Your task to perform on an android device: Is it going to rain today? Image 0: 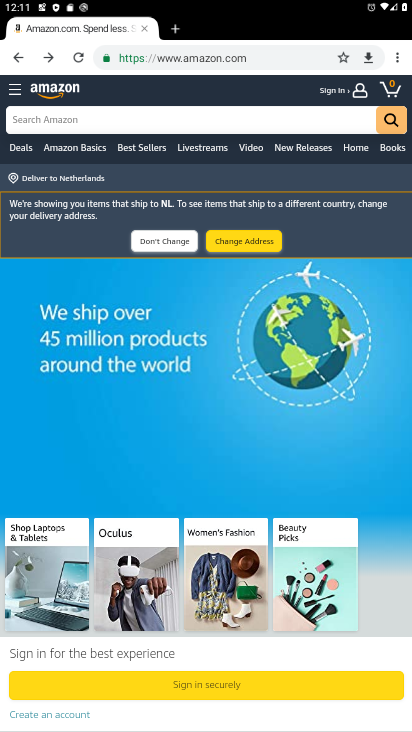
Step 0: press home button
Your task to perform on an android device: Is it going to rain today? Image 1: 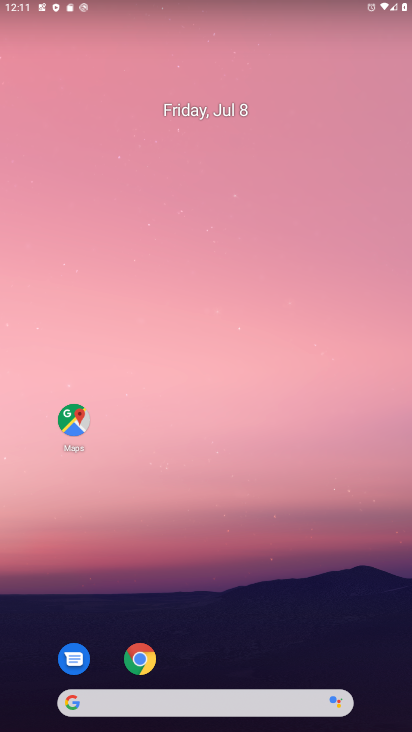
Step 1: click (245, 701)
Your task to perform on an android device: Is it going to rain today? Image 2: 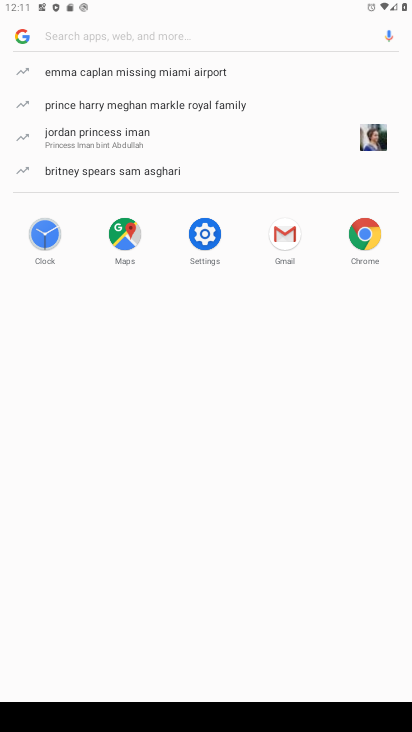
Step 2: type "is it going to rain today"
Your task to perform on an android device: Is it going to rain today? Image 3: 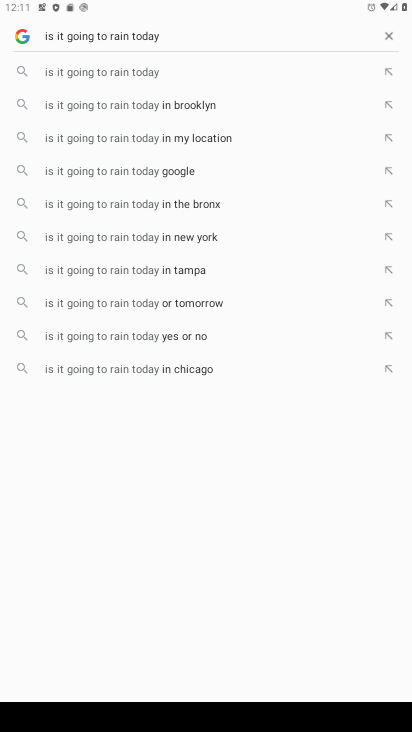
Step 3: click (144, 65)
Your task to perform on an android device: Is it going to rain today? Image 4: 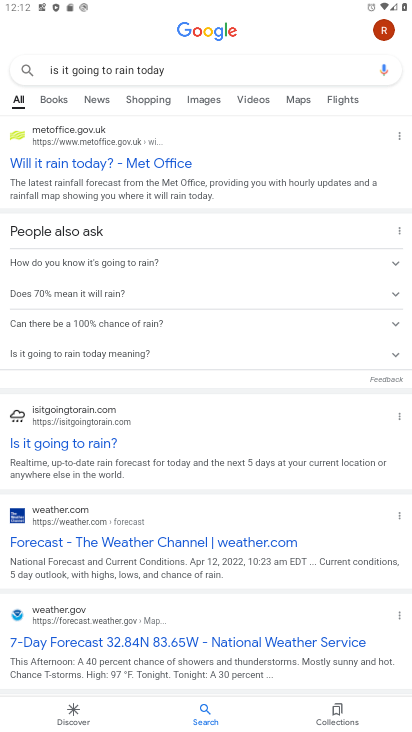
Step 4: click (69, 161)
Your task to perform on an android device: Is it going to rain today? Image 5: 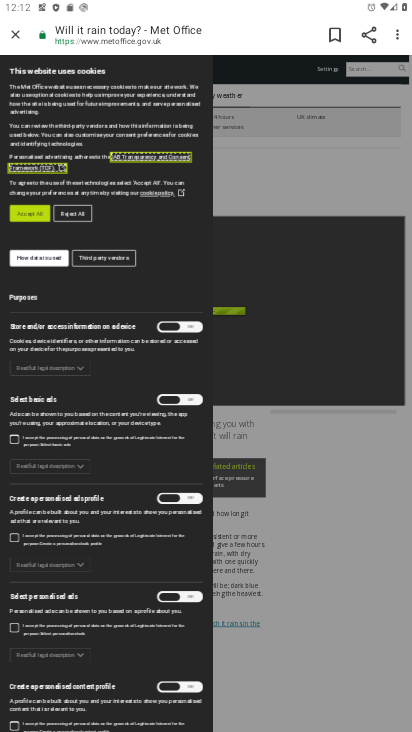
Step 5: task complete